Your task to perform on an android device: Open the phone app and click the voicemail tab. Image 0: 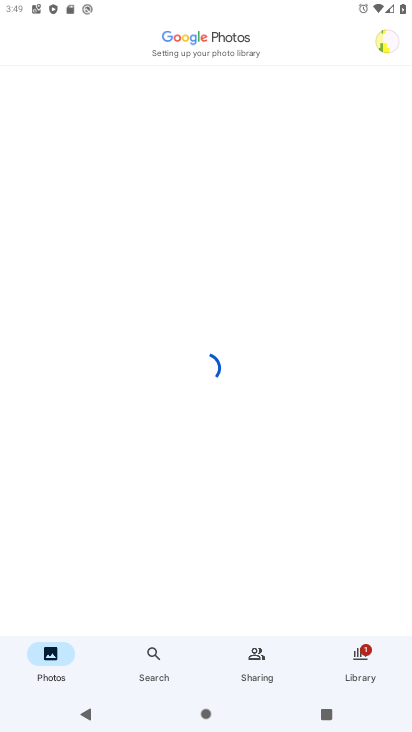
Step 0: press home button
Your task to perform on an android device: Open the phone app and click the voicemail tab. Image 1: 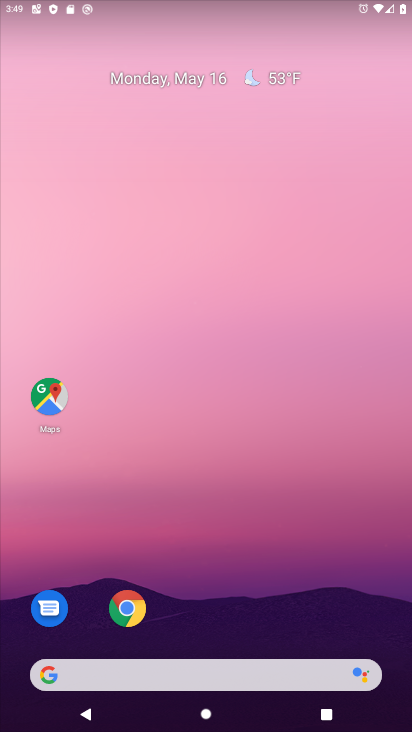
Step 1: drag from (239, 600) to (203, 163)
Your task to perform on an android device: Open the phone app and click the voicemail tab. Image 2: 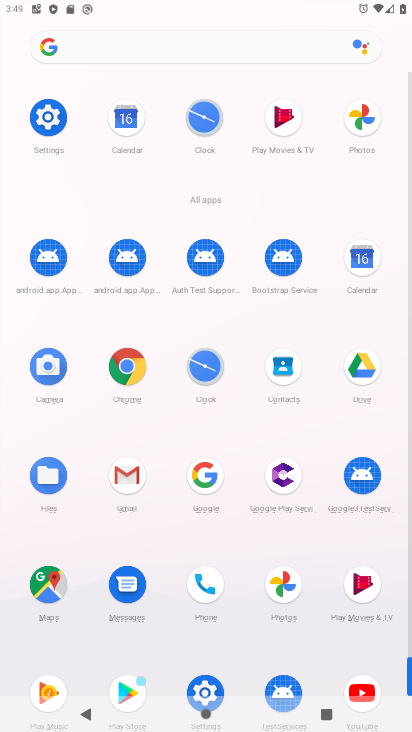
Step 2: click (201, 585)
Your task to perform on an android device: Open the phone app and click the voicemail tab. Image 3: 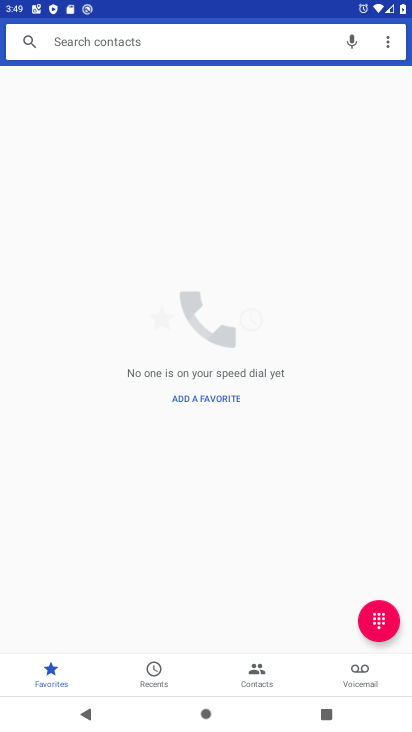
Step 3: click (361, 673)
Your task to perform on an android device: Open the phone app and click the voicemail tab. Image 4: 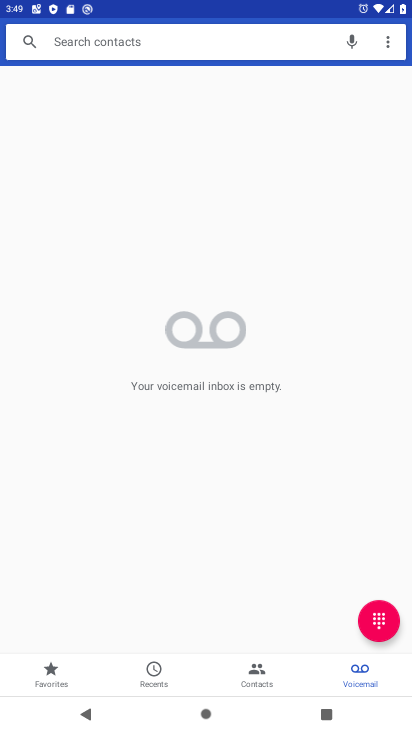
Step 4: task complete